Your task to perform on an android device: turn off improve location accuracy Image 0: 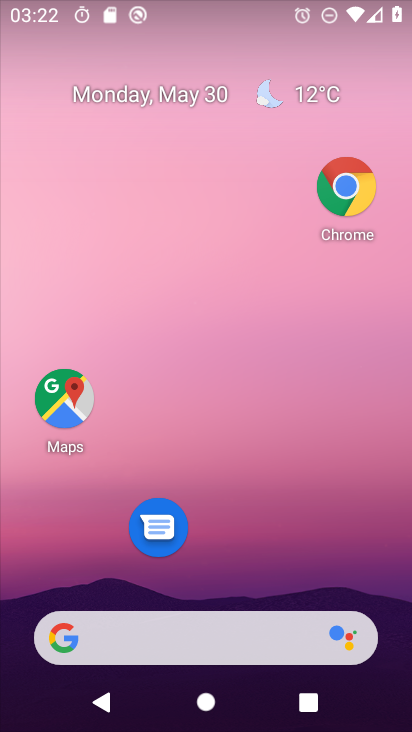
Step 0: drag from (219, 574) to (212, 69)
Your task to perform on an android device: turn off improve location accuracy Image 1: 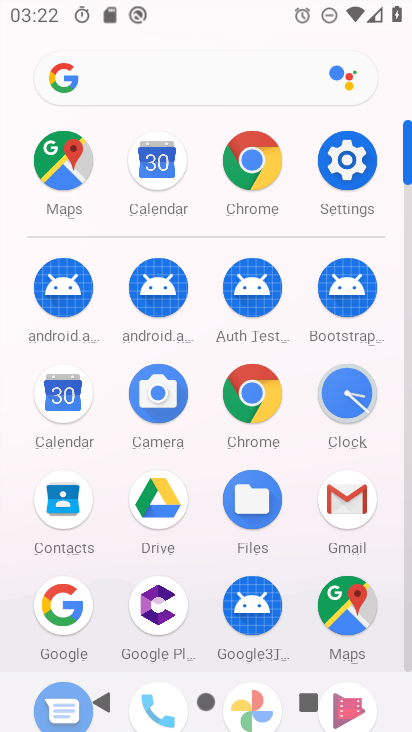
Step 1: click (348, 150)
Your task to perform on an android device: turn off improve location accuracy Image 2: 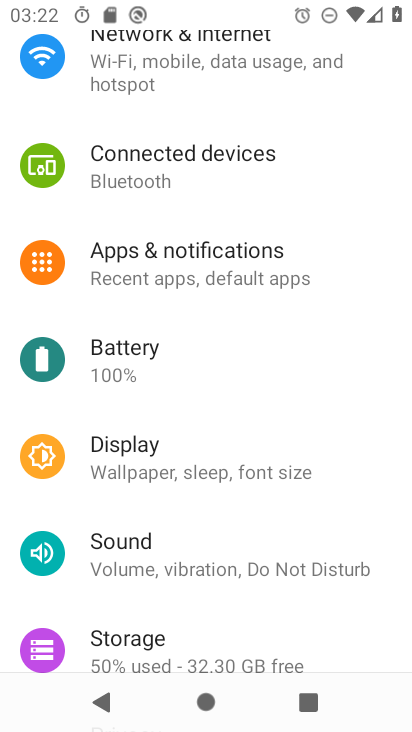
Step 2: drag from (213, 512) to (260, 155)
Your task to perform on an android device: turn off improve location accuracy Image 3: 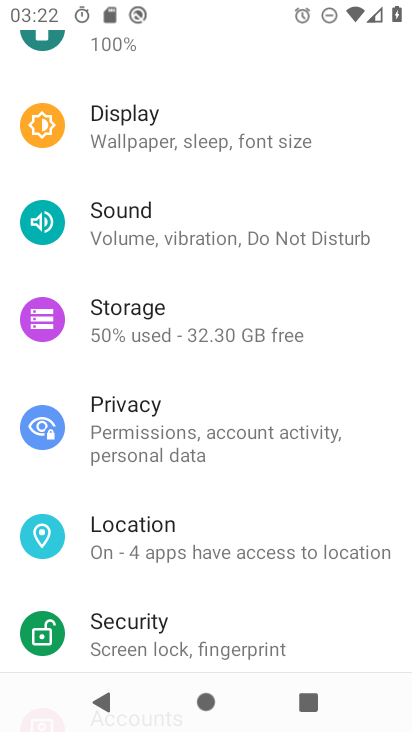
Step 3: drag from (183, 513) to (242, 107)
Your task to perform on an android device: turn off improve location accuracy Image 4: 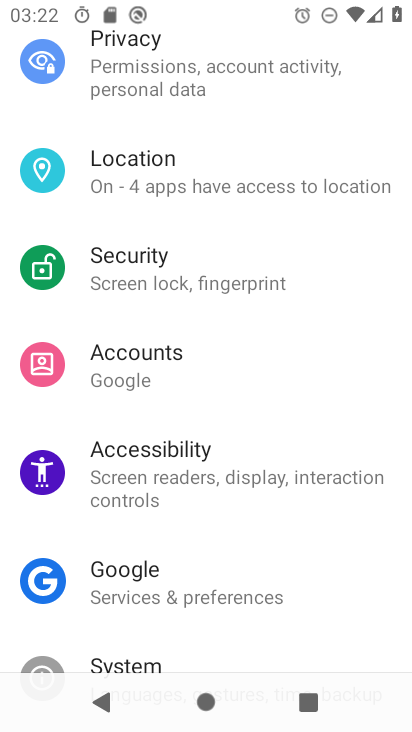
Step 4: click (163, 173)
Your task to perform on an android device: turn off improve location accuracy Image 5: 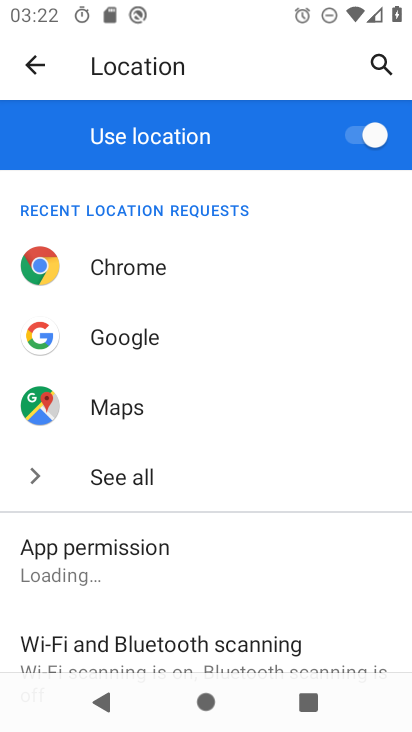
Step 5: drag from (177, 630) to (268, 193)
Your task to perform on an android device: turn off improve location accuracy Image 6: 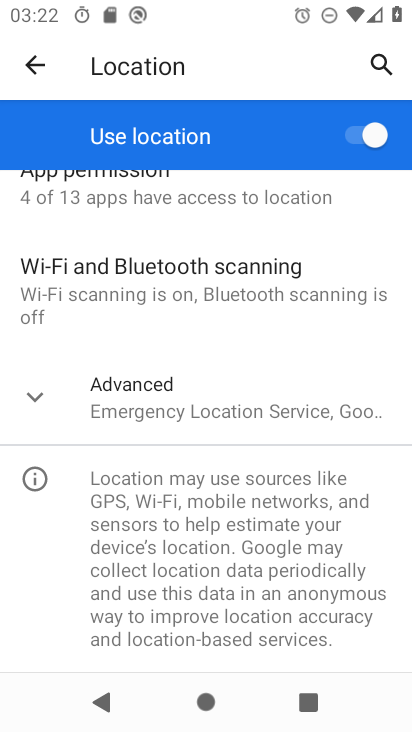
Step 6: click (159, 421)
Your task to perform on an android device: turn off improve location accuracy Image 7: 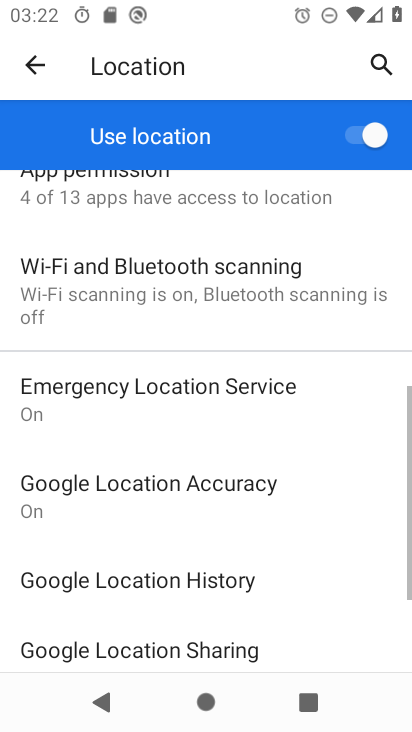
Step 7: drag from (259, 516) to (314, 300)
Your task to perform on an android device: turn off improve location accuracy Image 8: 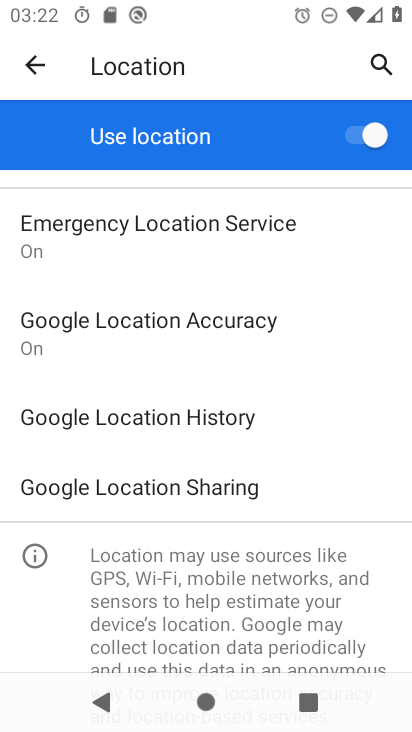
Step 8: click (173, 343)
Your task to perform on an android device: turn off improve location accuracy Image 9: 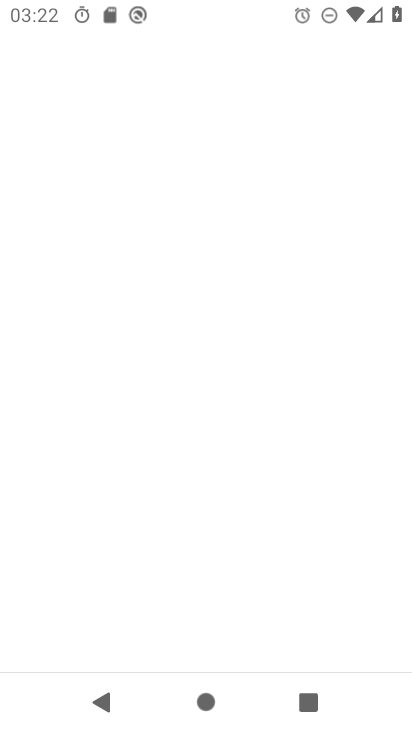
Step 9: drag from (316, 473) to (352, 240)
Your task to perform on an android device: turn off improve location accuracy Image 10: 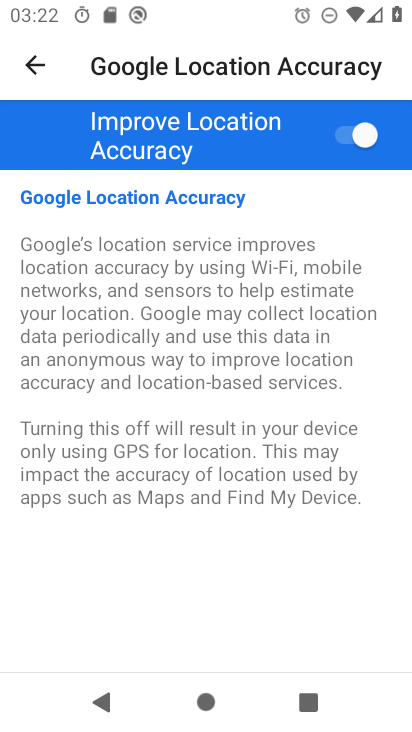
Step 10: drag from (246, 505) to (369, 306)
Your task to perform on an android device: turn off improve location accuracy Image 11: 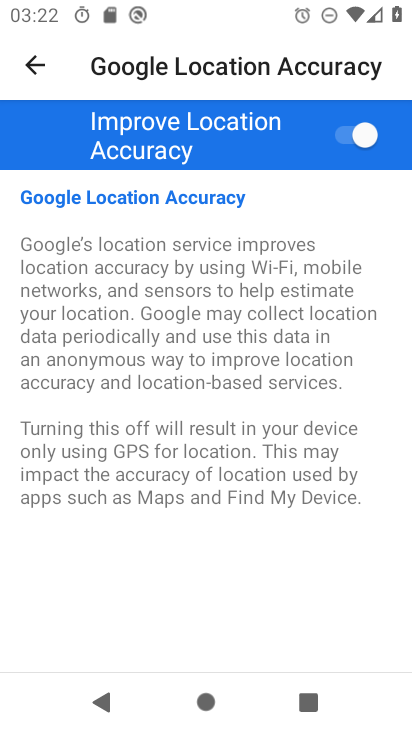
Step 11: click (366, 128)
Your task to perform on an android device: turn off improve location accuracy Image 12: 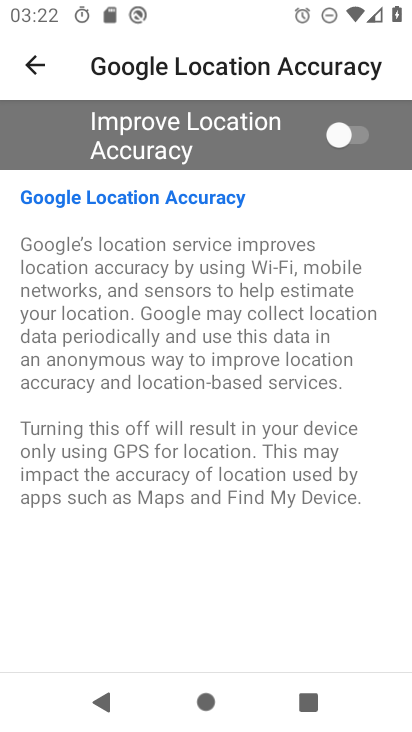
Step 12: task complete